Your task to perform on an android device: toggle priority inbox in the gmail app Image 0: 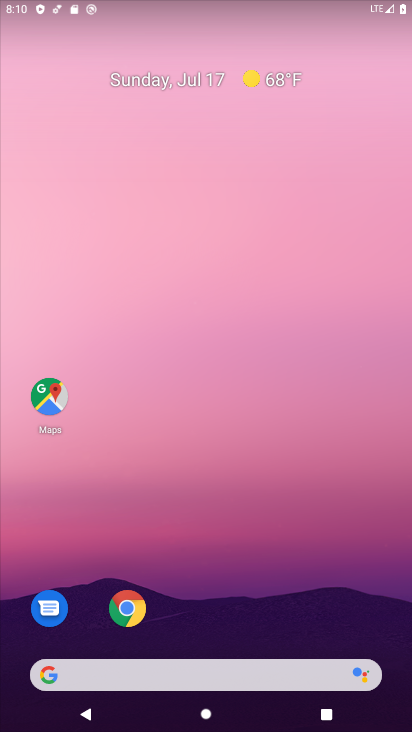
Step 0: drag from (290, 610) to (290, 131)
Your task to perform on an android device: toggle priority inbox in the gmail app Image 1: 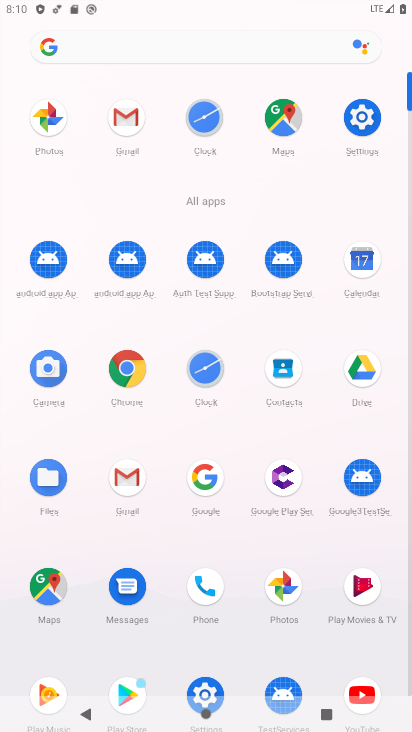
Step 1: click (121, 118)
Your task to perform on an android device: toggle priority inbox in the gmail app Image 2: 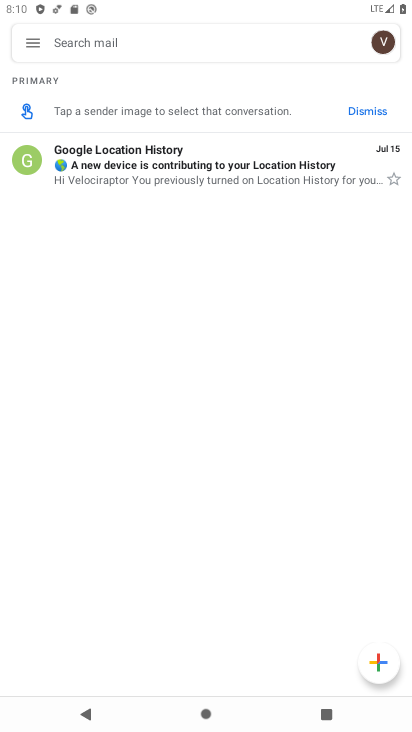
Step 2: click (27, 42)
Your task to perform on an android device: toggle priority inbox in the gmail app Image 3: 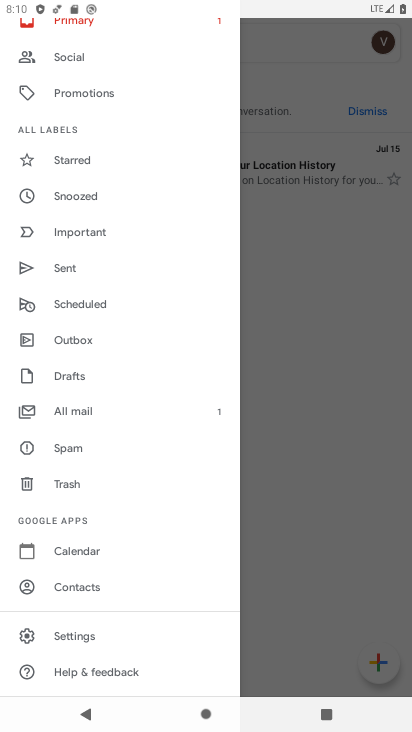
Step 3: click (117, 637)
Your task to perform on an android device: toggle priority inbox in the gmail app Image 4: 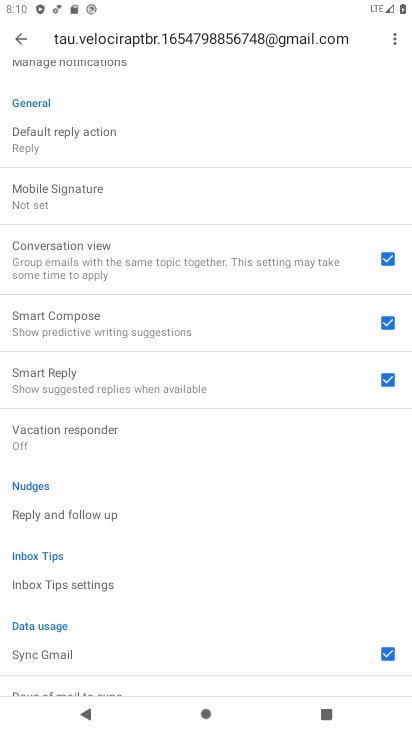
Step 4: drag from (149, 165) to (160, 615)
Your task to perform on an android device: toggle priority inbox in the gmail app Image 5: 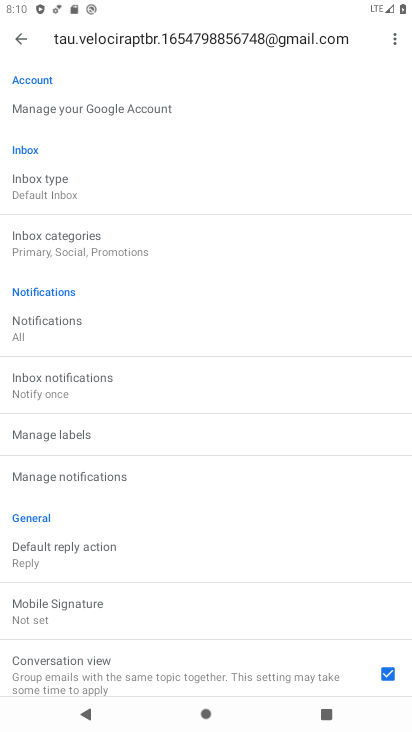
Step 5: click (118, 186)
Your task to perform on an android device: toggle priority inbox in the gmail app Image 6: 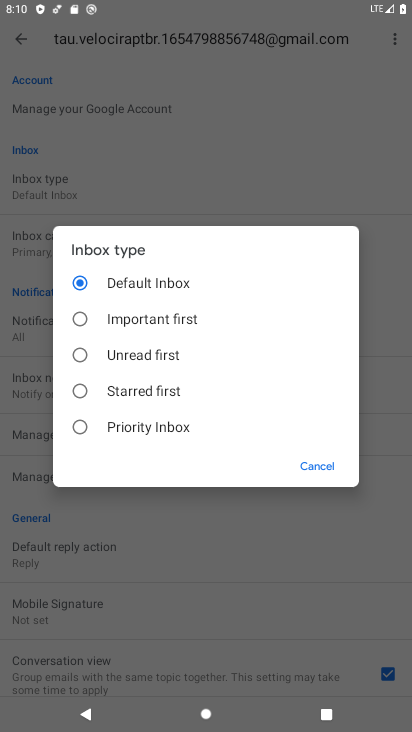
Step 6: click (181, 425)
Your task to perform on an android device: toggle priority inbox in the gmail app Image 7: 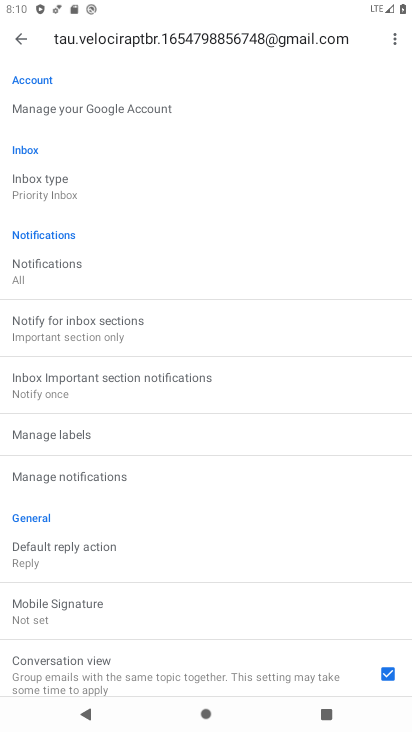
Step 7: task complete